Your task to perform on an android device: open chrome privacy settings Image 0: 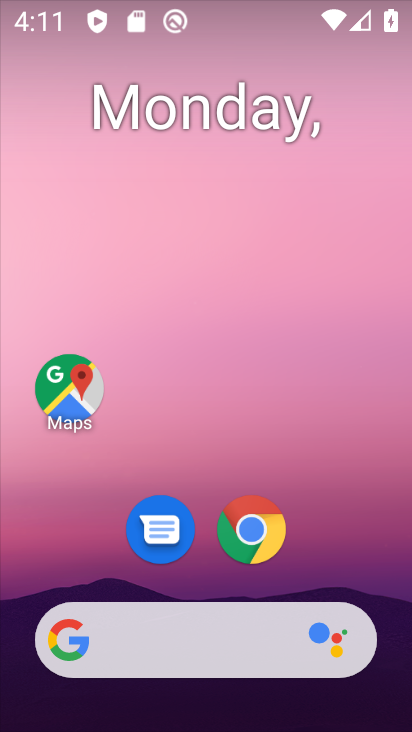
Step 0: click (250, 536)
Your task to perform on an android device: open chrome privacy settings Image 1: 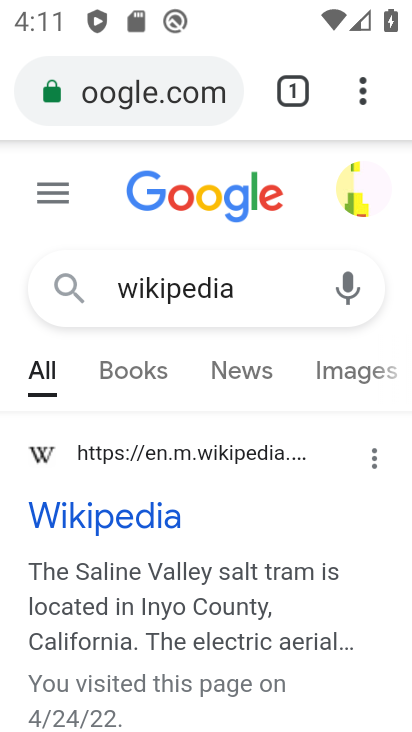
Step 1: click (364, 96)
Your task to perform on an android device: open chrome privacy settings Image 2: 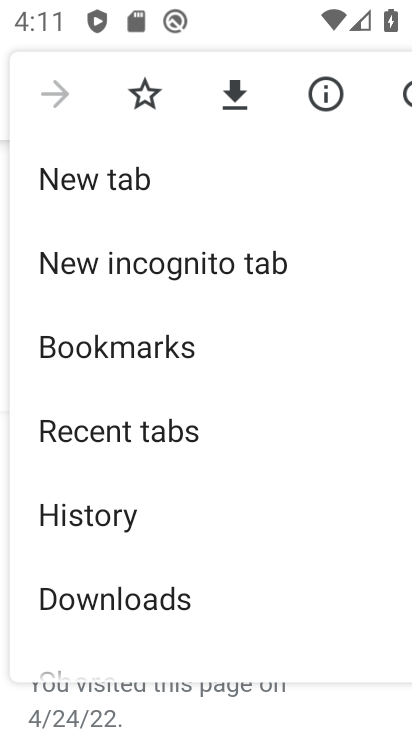
Step 2: drag from (140, 530) to (154, 290)
Your task to perform on an android device: open chrome privacy settings Image 3: 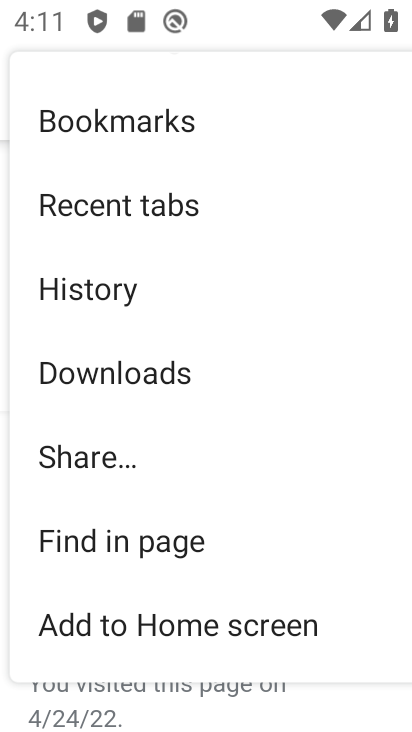
Step 3: drag from (130, 538) to (214, 157)
Your task to perform on an android device: open chrome privacy settings Image 4: 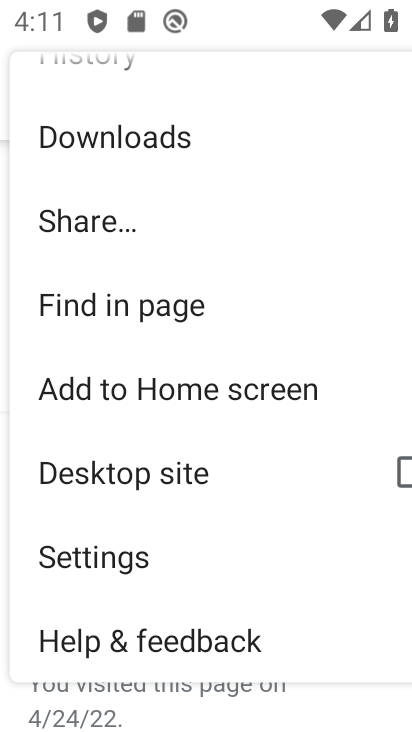
Step 4: click (142, 548)
Your task to perform on an android device: open chrome privacy settings Image 5: 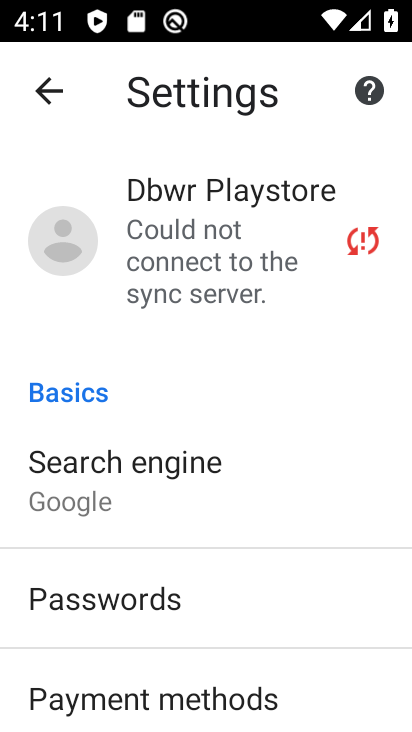
Step 5: drag from (154, 608) to (220, 257)
Your task to perform on an android device: open chrome privacy settings Image 6: 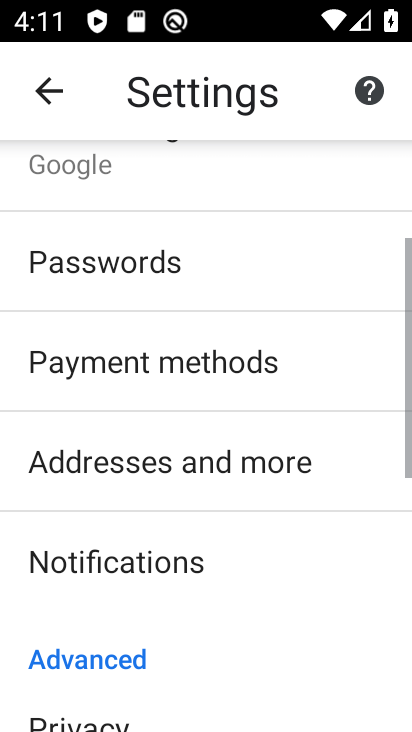
Step 6: drag from (174, 611) to (222, 287)
Your task to perform on an android device: open chrome privacy settings Image 7: 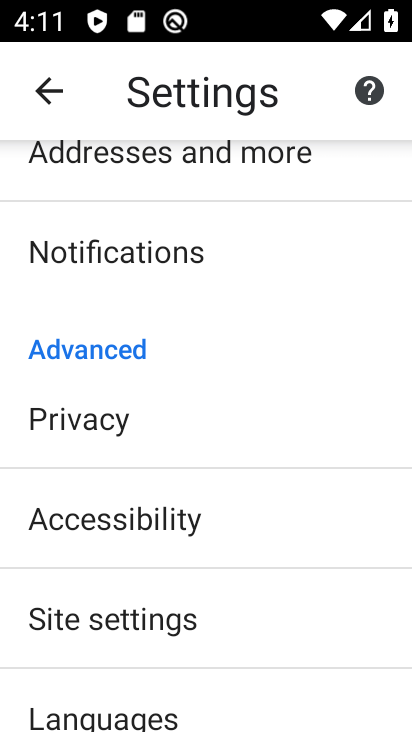
Step 7: click (118, 414)
Your task to perform on an android device: open chrome privacy settings Image 8: 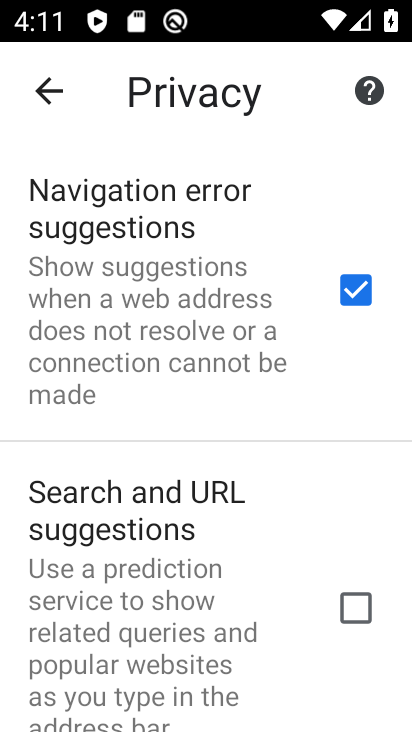
Step 8: task complete